Your task to perform on an android device: Open notification settings Image 0: 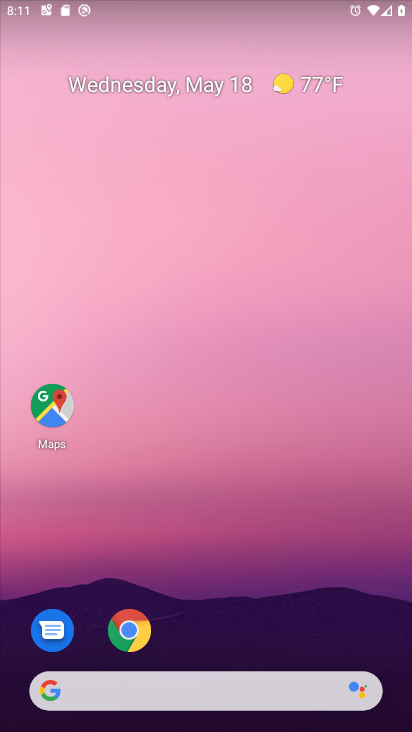
Step 0: click (212, 155)
Your task to perform on an android device: Open notification settings Image 1: 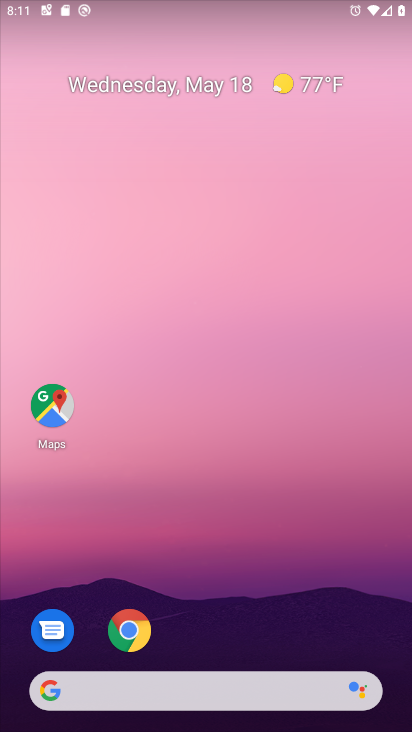
Step 1: drag from (283, 639) to (305, 184)
Your task to perform on an android device: Open notification settings Image 2: 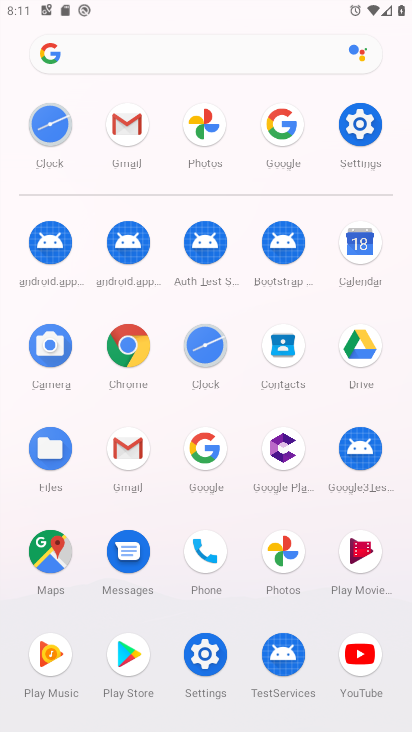
Step 2: click (349, 130)
Your task to perform on an android device: Open notification settings Image 3: 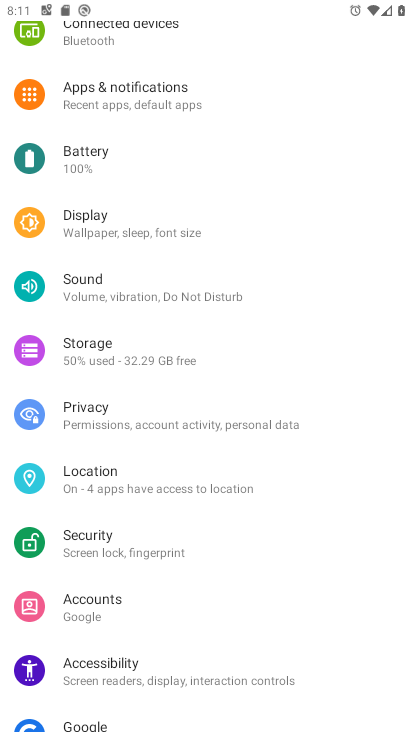
Step 3: drag from (194, 629) to (235, 606)
Your task to perform on an android device: Open notification settings Image 4: 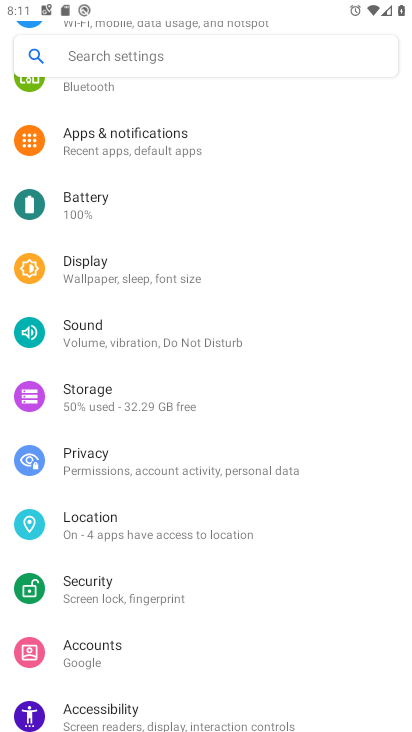
Step 4: click (165, 145)
Your task to perform on an android device: Open notification settings Image 5: 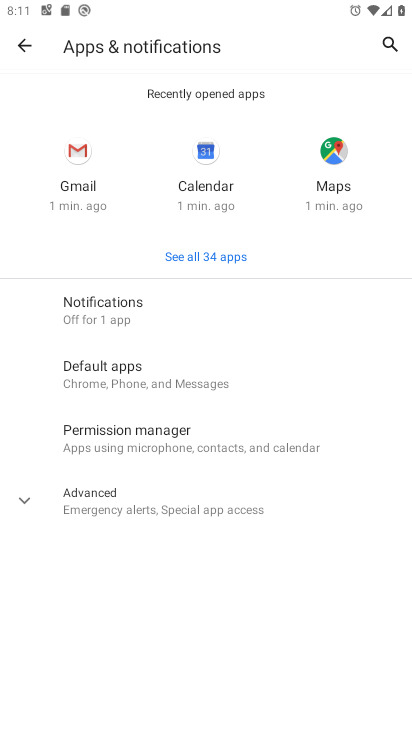
Step 5: click (132, 307)
Your task to perform on an android device: Open notification settings Image 6: 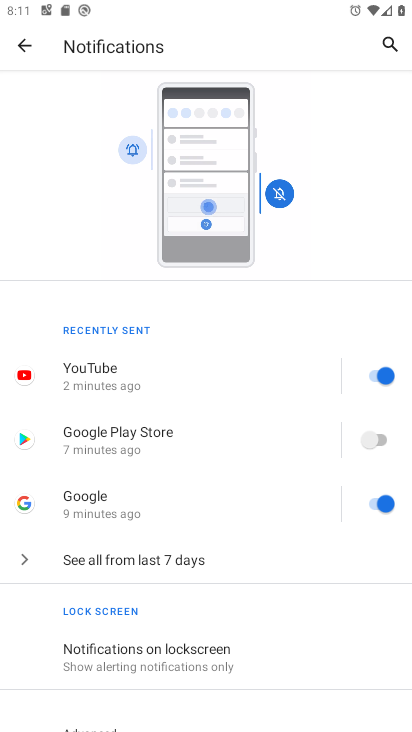
Step 6: task complete